Your task to perform on an android device: Open Yahoo.com Image 0: 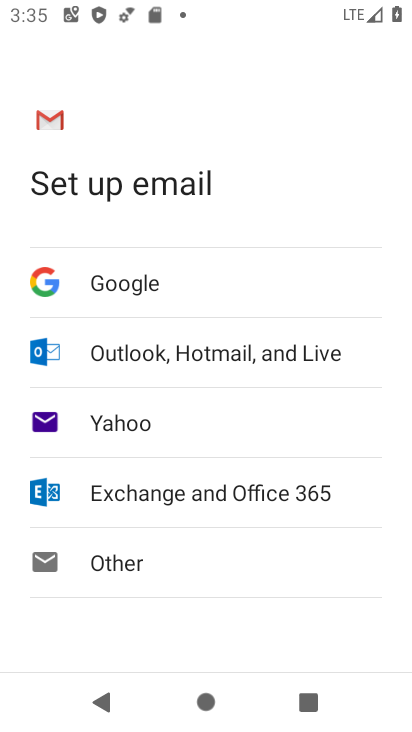
Step 0: press home button
Your task to perform on an android device: Open Yahoo.com Image 1: 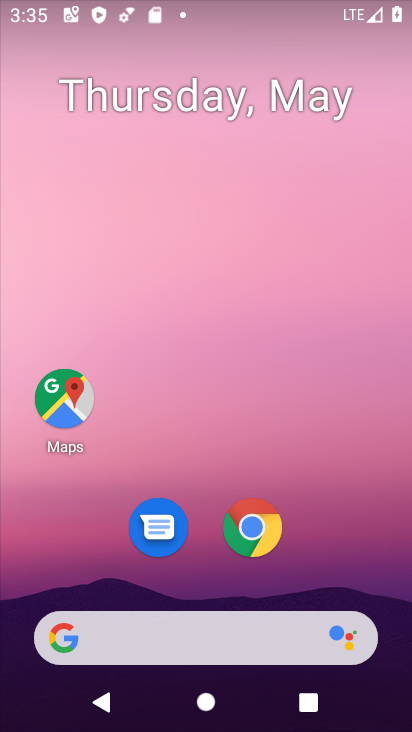
Step 1: click (254, 527)
Your task to perform on an android device: Open Yahoo.com Image 2: 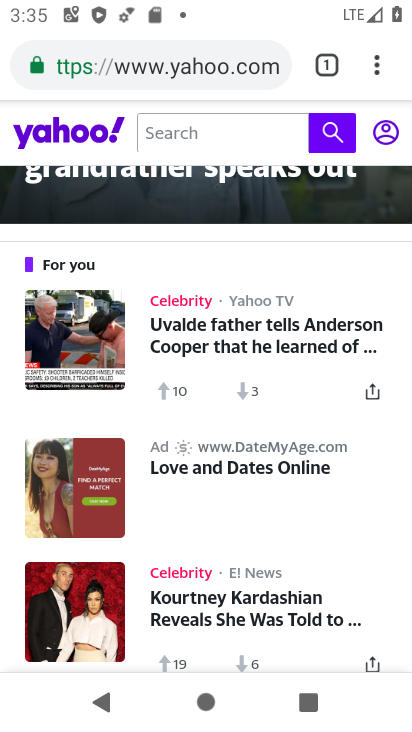
Step 2: task complete